Your task to perform on an android device: Clear the shopping cart on newegg.com. Add bose soundlink mini to the cart on newegg.com, then select checkout. Image 0: 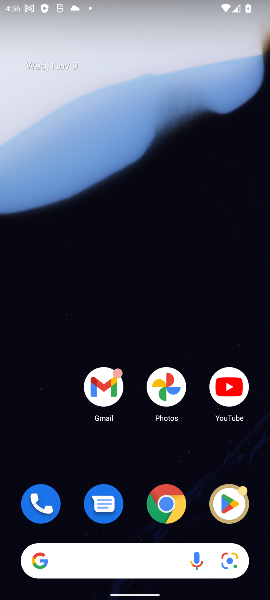
Step 0: click (144, 568)
Your task to perform on an android device: Clear the shopping cart on newegg.com. Add bose soundlink mini to the cart on newegg.com, then select checkout. Image 1: 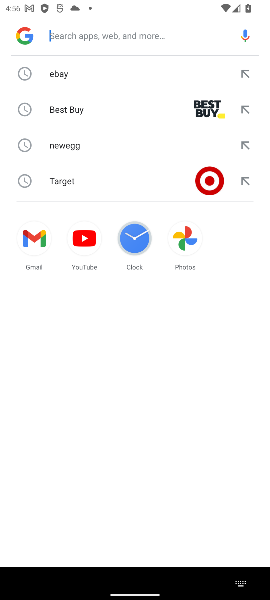
Step 1: click (60, 145)
Your task to perform on an android device: Clear the shopping cart on newegg.com. Add bose soundlink mini to the cart on newegg.com, then select checkout. Image 2: 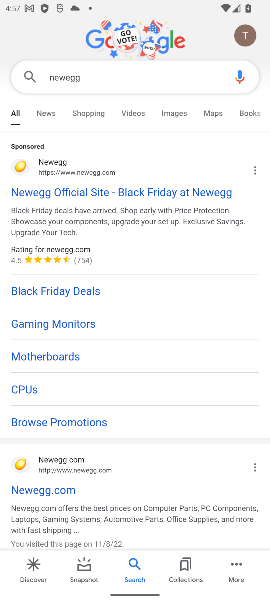
Step 2: click (58, 162)
Your task to perform on an android device: Clear the shopping cart on newegg.com. Add bose soundlink mini to the cart on newegg.com, then select checkout. Image 3: 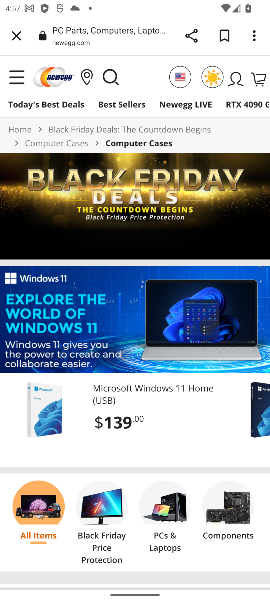
Step 3: click (107, 76)
Your task to perform on an android device: Clear the shopping cart on newegg.com. Add bose soundlink mini to the cart on newegg.com, then select checkout. Image 4: 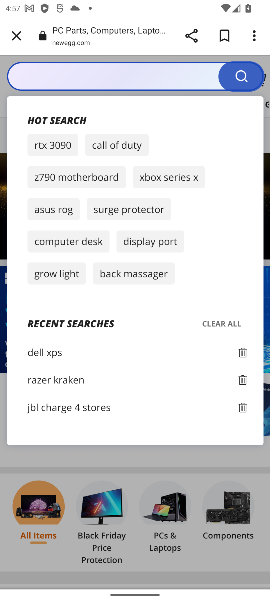
Step 4: click (107, 76)
Your task to perform on an android device: Clear the shopping cart on newegg.com. Add bose soundlink mini to the cart on newegg.com, then select checkout. Image 5: 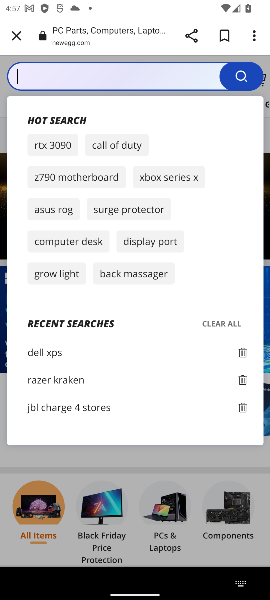
Step 5: type "soundlink mini "
Your task to perform on an android device: Clear the shopping cart on newegg.com. Add bose soundlink mini to the cart on newegg.com, then select checkout. Image 6: 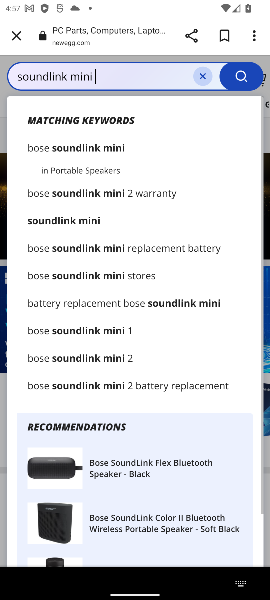
Step 6: click (113, 150)
Your task to perform on an android device: Clear the shopping cart on newegg.com. Add bose soundlink mini to the cart on newegg.com, then select checkout. Image 7: 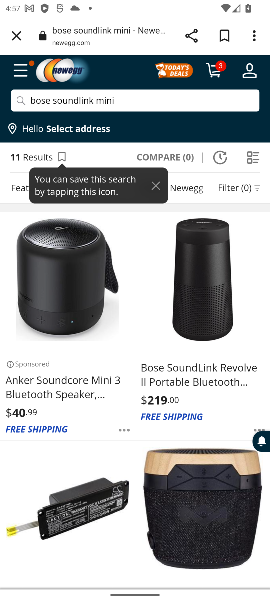
Step 7: click (69, 274)
Your task to perform on an android device: Clear the shopping cart on newegg.com. Add bose soundlink mini to the cart on newegg.com, then select checkout. Image 8: 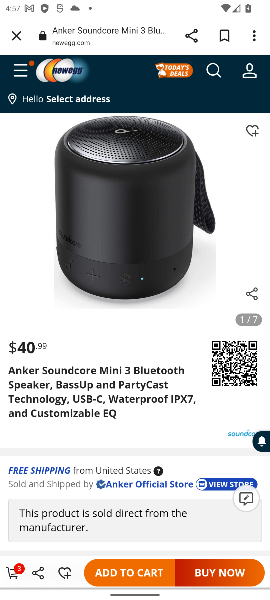
Step 8: click (130, 572)
Your task to perform on an android device: Clear the shopping cart on newegg.com. Add bose soundlink mini to the cart on newegg.com, then select checkout. Image 9: 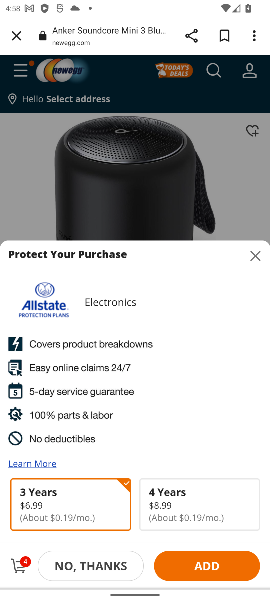
Step 9: click (104, 569)
Your task to perform on an android device: Clear the shopping cart on newegg.com. Add bose soundlink mini to the cart on newegg.com, then select checkout. Image 10: 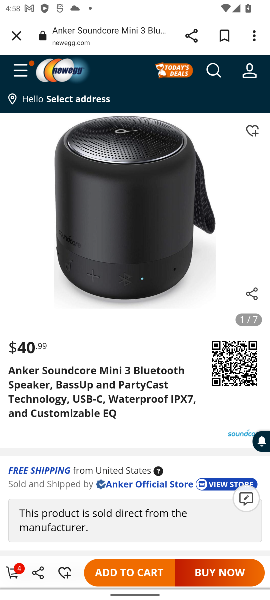
Step 10: drag from (152, 408) to (157, 195)
Your task to perform on an android device: Clear the shopping cart on newegg.com. Add bose soundlink mini to the cart on newegg.com, then select checkout. Image 11: 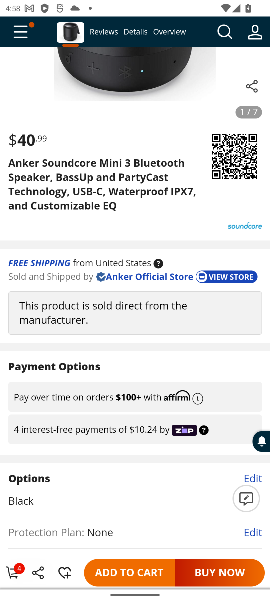
Step 11: drag from (157, 483) to (188, 349)
Your task to perform on an android device: Clear the shopping cart on newegg.com. Add bose soundlink mini to the cart on newegg.com, then select checkout. Image 12: 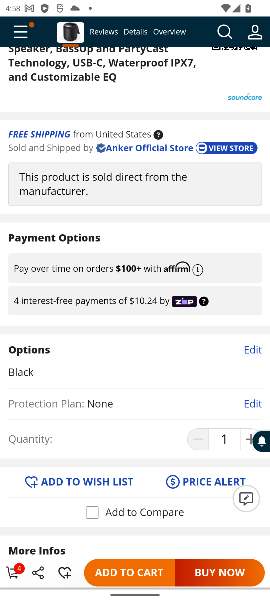
Step 12: click (14, 571)
Your task to perform on an android device: Clear the shopping cart on newegg.com. Add bose soundlink mini to the cart on newegg.com, then select checkout. Image 13: 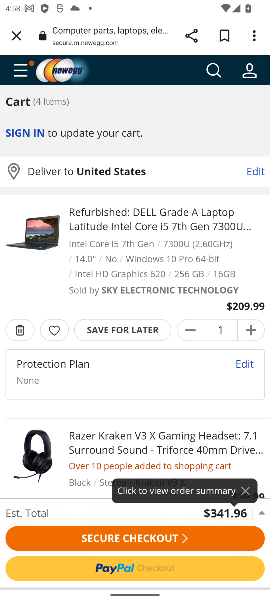
Step 13: click (132, 541)
Your task to perform on an android device: Clear the shopping cart on newegg.com. Add bose soundlink mini to the cart on newegg.com, then select checkout. Image 14: 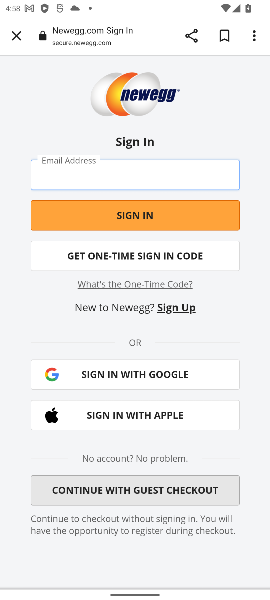
Step 14: task complete